Your task to perform on an android device: clear all cookies in the chrome app Image 0: 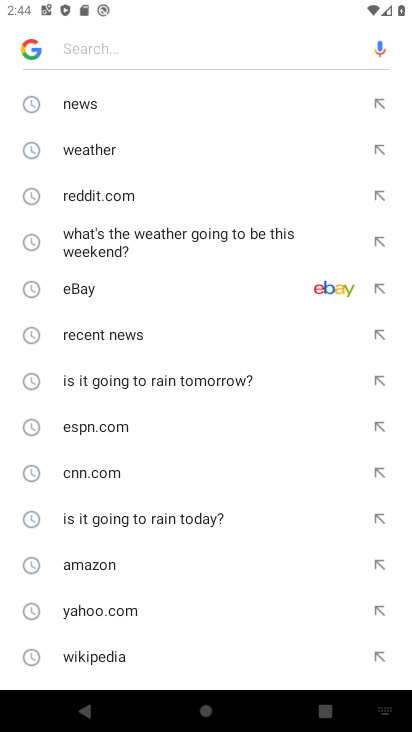
Step 0: press home button
Your task to perform on an android device: clear all cookies in the chrome app Image 1: 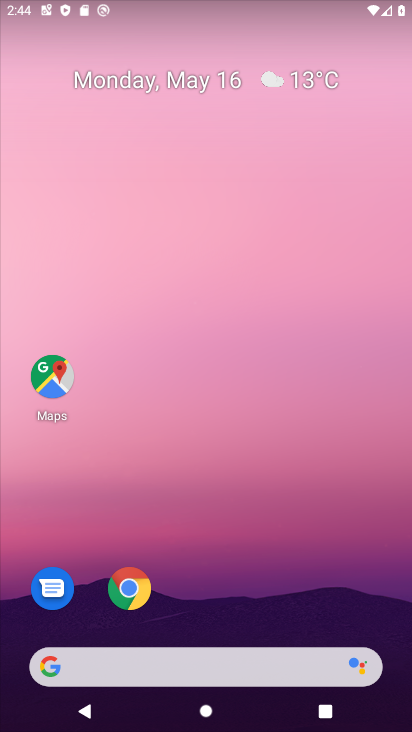
Step 1: drag from (250, 650) to (406, 13)
Your task to perform on an android device: clear all cookies in the chrome app Image 2: 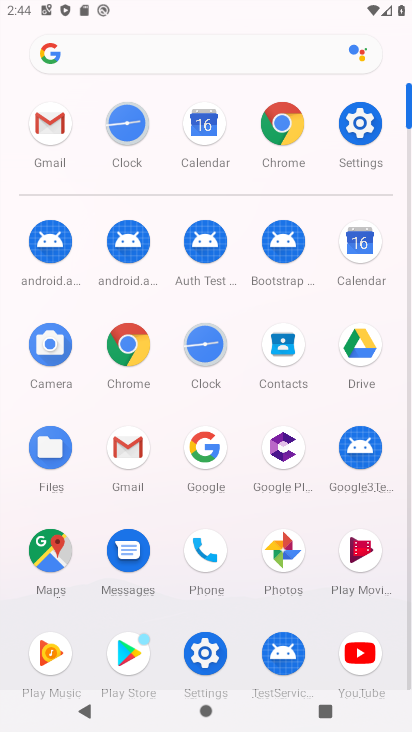
Step 2: click (128, 344)
Your task to perform on an android device: clear all cookies in the chrome app Image 3: 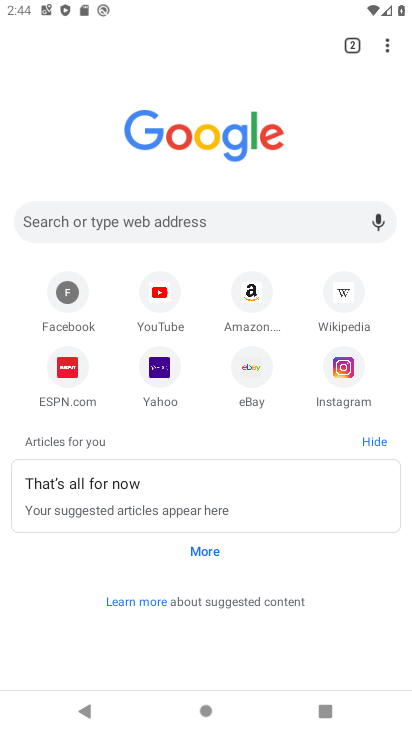
Step 3: click (395, 44)
Your task to perform on an android device: clear all cookies in the chrome app Image 4: 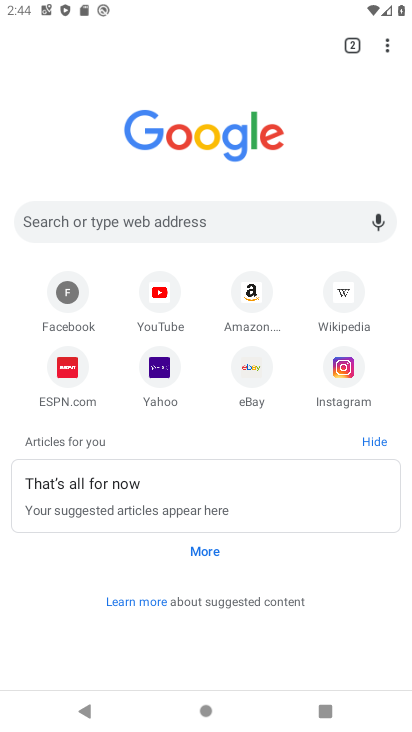
Step 4: click (377, 38)
Your task to perform on an android device: clear all cookies in the chrome app Image 5: 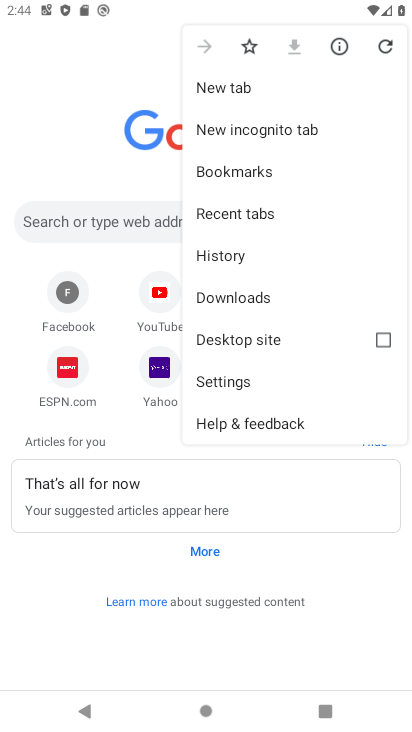
Step 5: click (244, 379)
Your task to perform on an android device: clear all cookies in the chrome app Image 6: 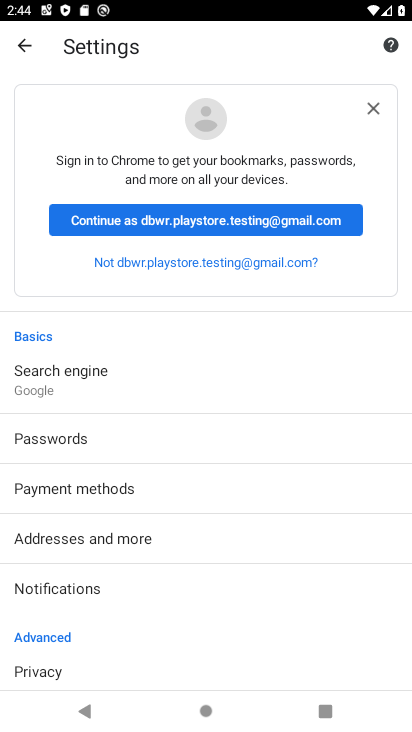
Step 6: drag from (98, 654) to (129, 285)
Your task to perform on an android device: clear all cookies in the chrome app Image 7: 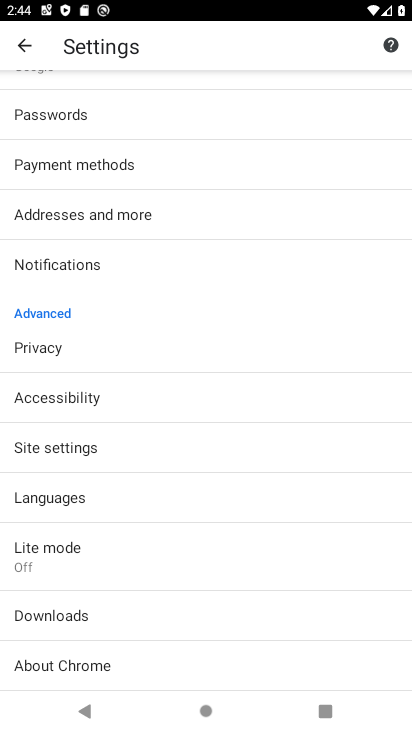
Step 7: click (71, 357)
Your task to perform on an android device: clear all cookies in the chrome app Image 8: 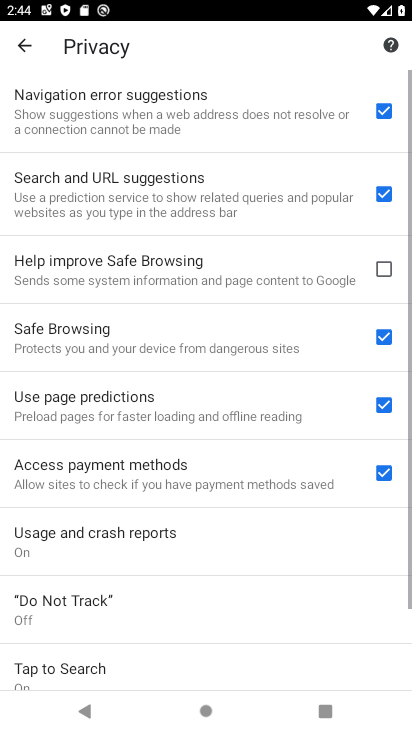
Step 8: drag from (211, 670) to (284, 132)
Your task to perform on an android device: clear all cookies in the chrome app Image 9: 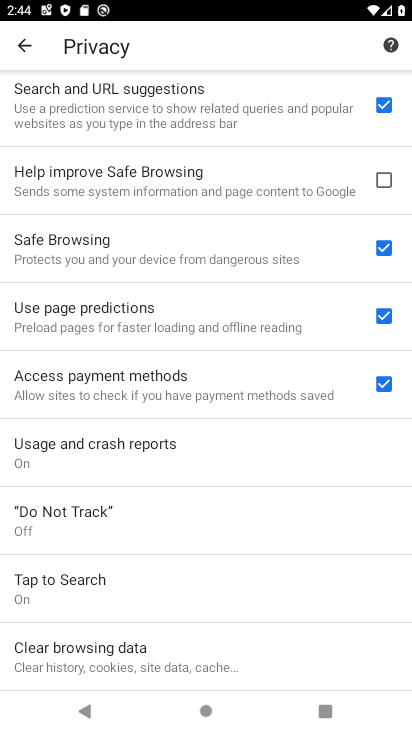
Step 9: click (189, 646)
Your task to perform on an android device: clear all cookies in the chrome app Image 10: 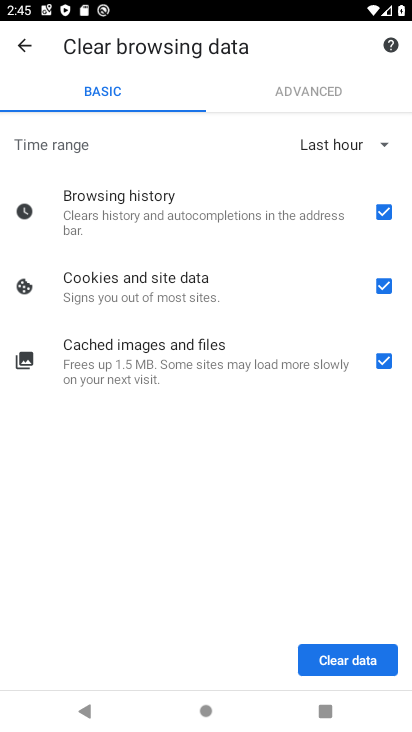
Step 10: click (356, 645)
Your task to perform on an android device: clear all cookies in the chrome app Image 11: 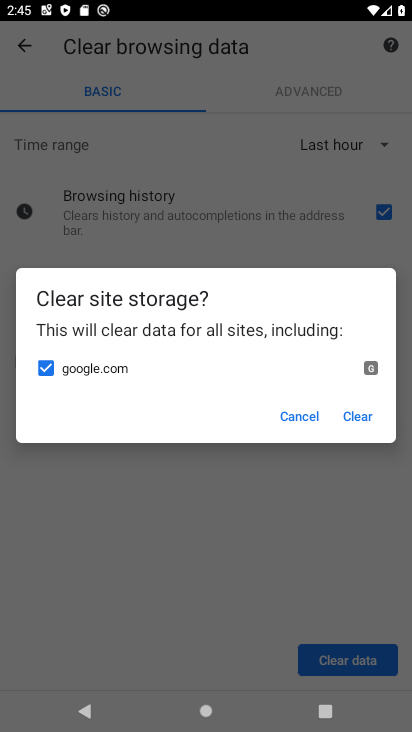
Step 11: click (357, 415)
Your task to perform on an android device: clear all cookies in the chrome app Image 12: 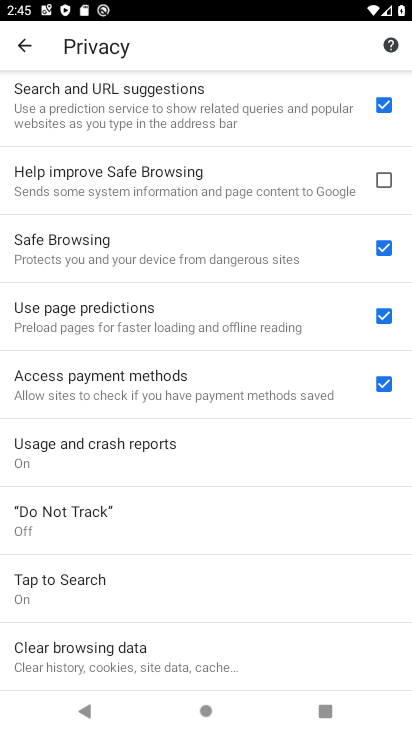
Step 12: task complete